Your task to perform on an android device: Open the Play Movies app and select the watchlist tab. Image 0: 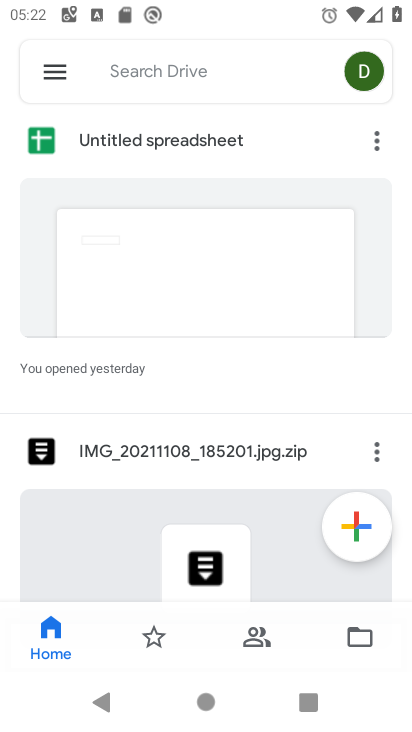
Step 0: press home button
Your task to perform on an android device: Open the Play Movies app and select the watchlist tab. Image 1: 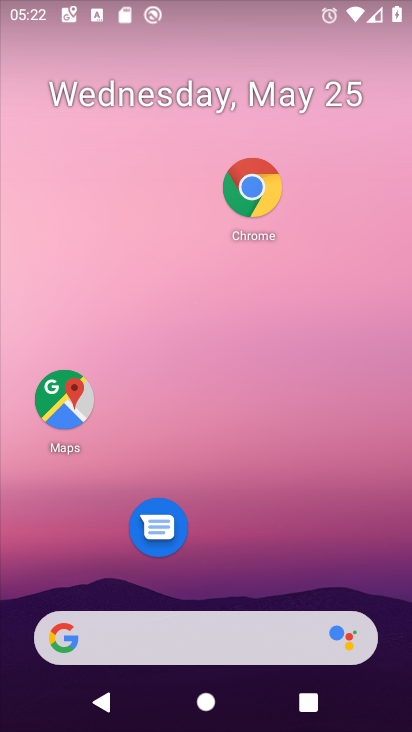
Step 1: drag from (289, 577) to (347, 67)
Your task to perform on an android device: Open the Play Movies app and select the watchlist tab. Image 2: 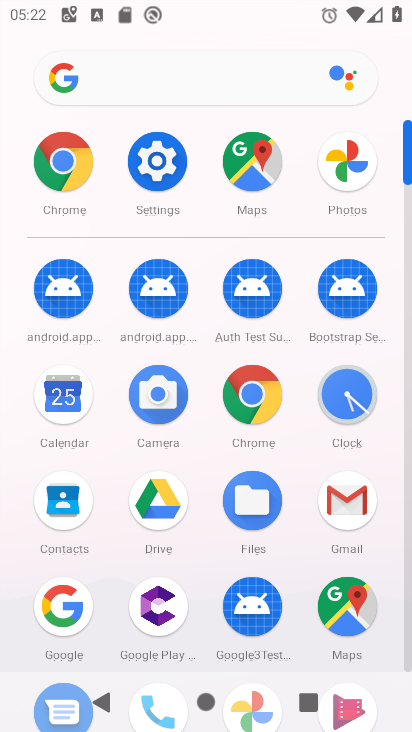
Step 2: drag from (305, 597) to (336, 270)
Your task to perform on an android device: Open the Play Movies app and select the watchlist tab. Image 3: 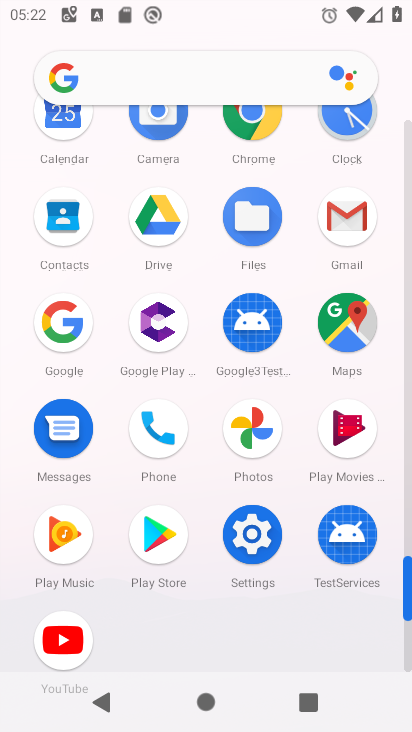
Step 3: click (351, 421)
Your task to perform on an android device: Open the Play Movies app and select the watchlist tab. Image 4: 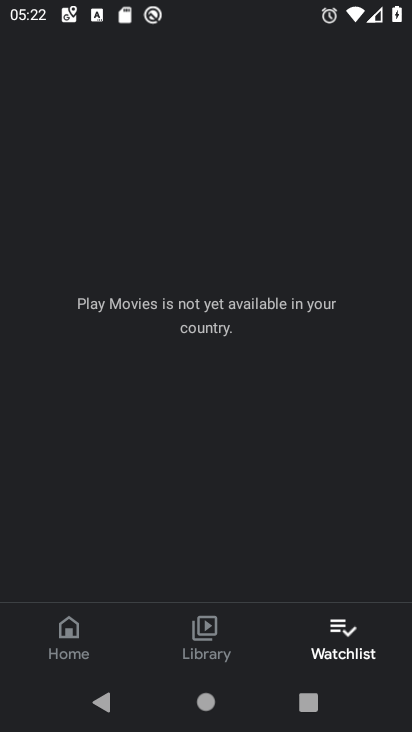
Step 4: click (349, 646)
Your task to perform on an android device: Open the Play Movies app and select the watchlist tab. Image 5: 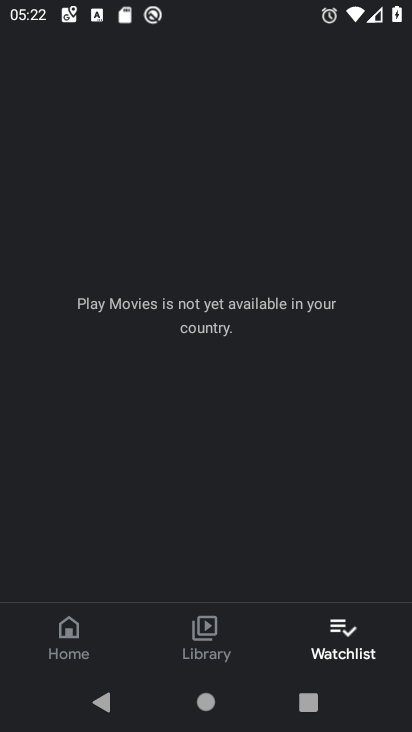
Step 5: task complete